Your task to perform on an android device: Go to Google maps Image 0: 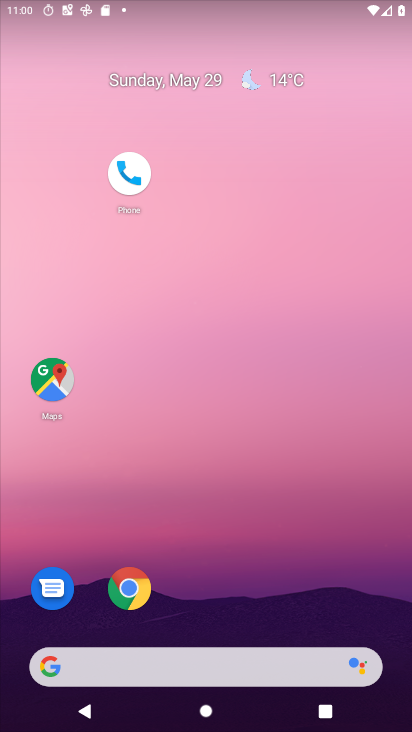
Step 0: drag from (274, 630) to (215, 194)
Your task to perform on an android device: Go to Google maps Image 1: 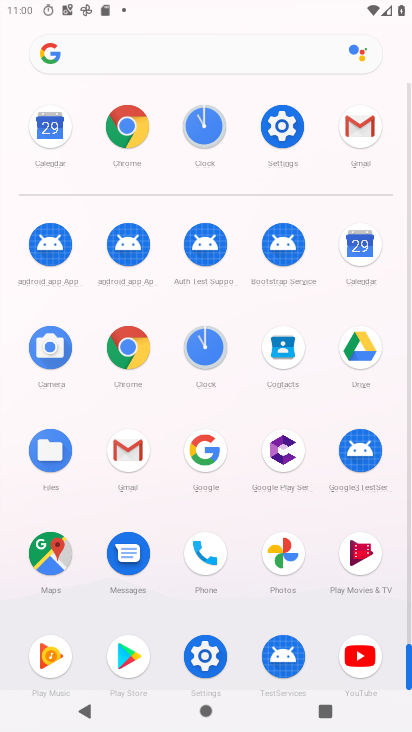
Step 1: click (52, 539)
Your task to perform on an android device: Go to Google maps Image 2: 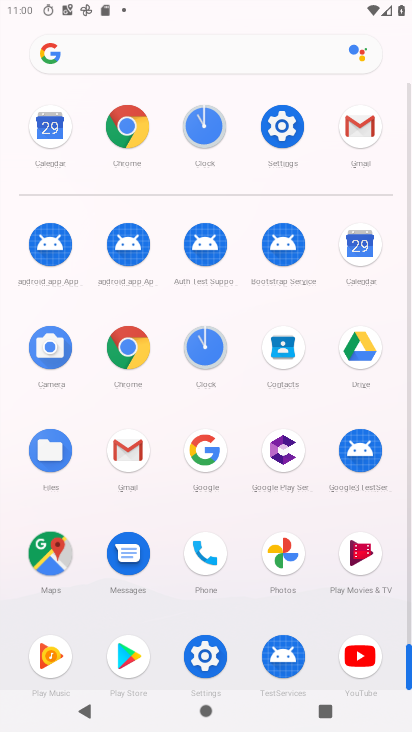
Step 2: click (52, 539)
Your task to perform on an android device: Go to Google maps Image 3: 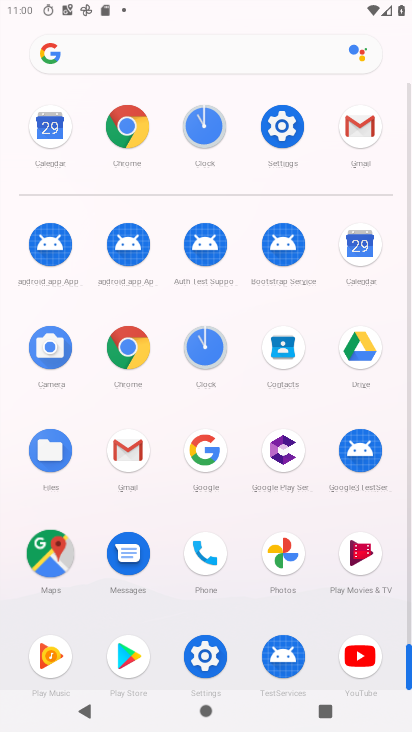
Step 3: click (48, 536)
Your task to perform on an android device: Go to Google maps Image 4: 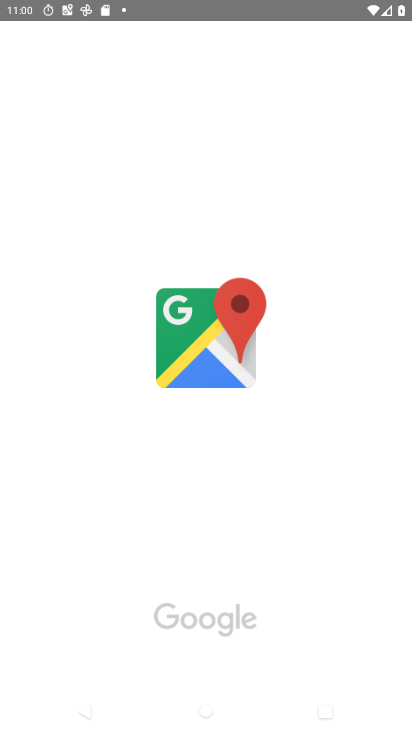
Step 4: click (44, 522)
Your task to perform on an android device: Go to Google maps Image 5: 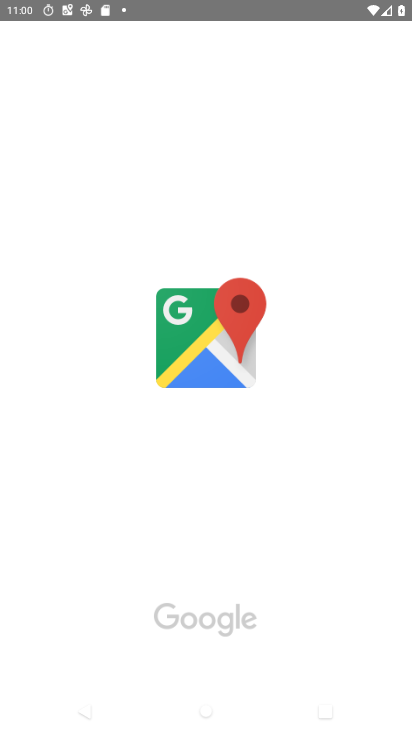
Step 5: click (44, 516)
Your task to perform on an android device: Go to Google maps Image 6: 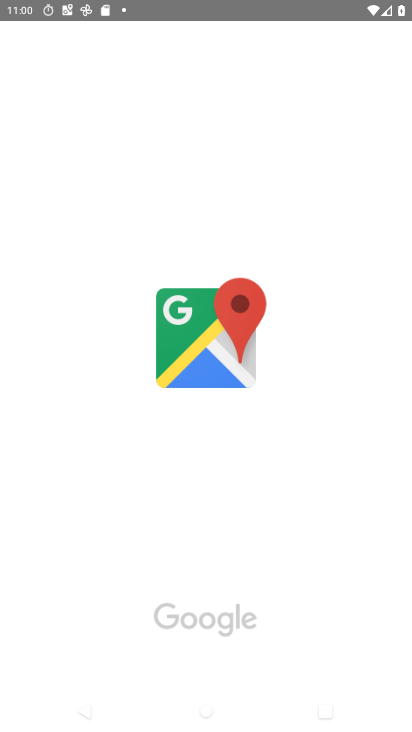
Step 6: click (44, 515)
Your task to perform on an android device: Go to Google maps Image 7: 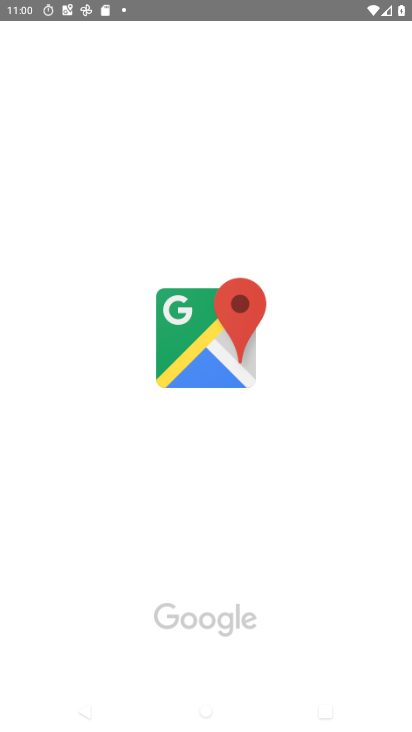
Step 7: click (45, 513)
Your task to perform on an android device: Go to Google maps Image 8: 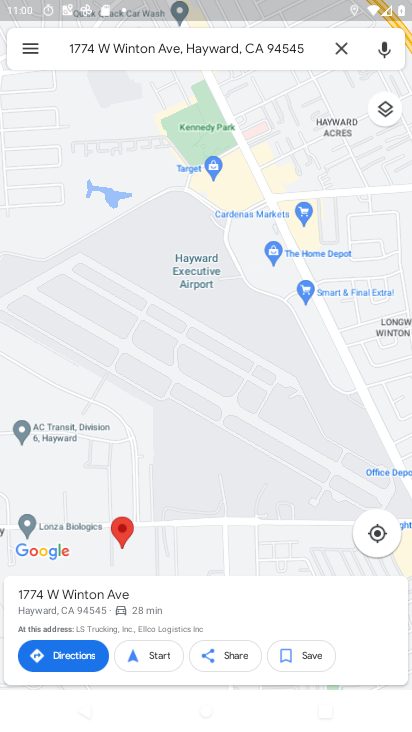
Step 8: task complete